Your task to perform on an android device: What's the weather? Image 0: 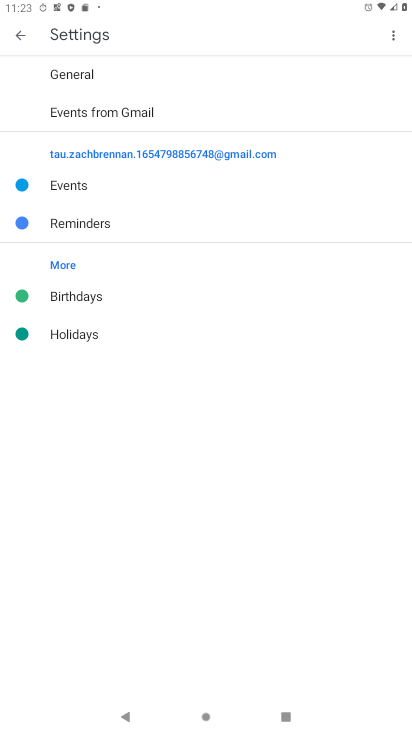
Step 0: drag from (306, 532) to (296, 138)
Your task to perform on an android device: What's the weather? Image 1: 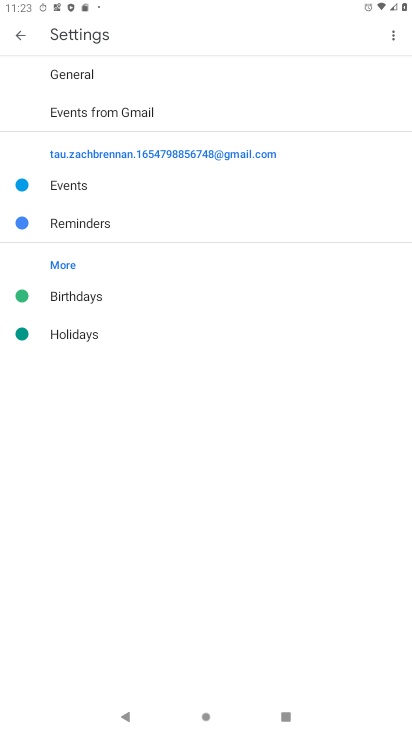
Step 1: click (14, 34)
Your task to perform on an android device: What's the weather? Image 2: 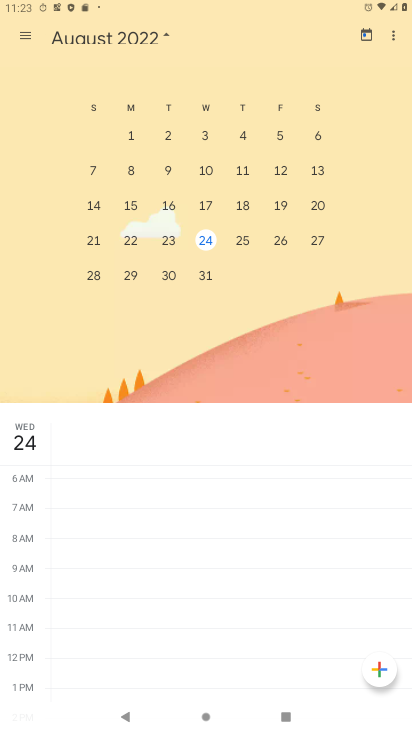
Step 2: press back button
Your task to perform on an android device: What's the weather? Image 3: 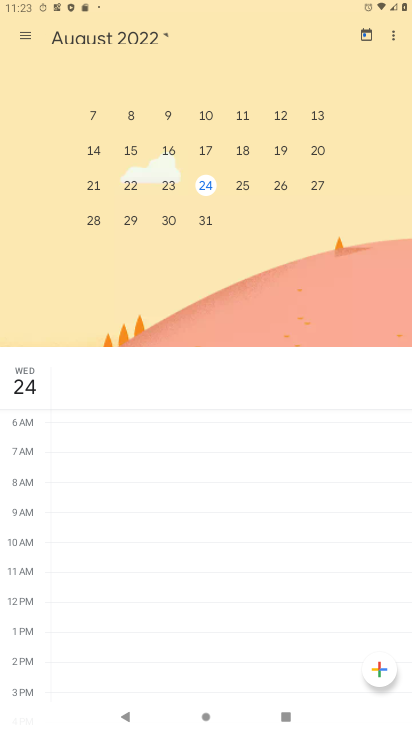
Step 3: press back button
Your task to perform on an android device: What's the weather? Image 4: 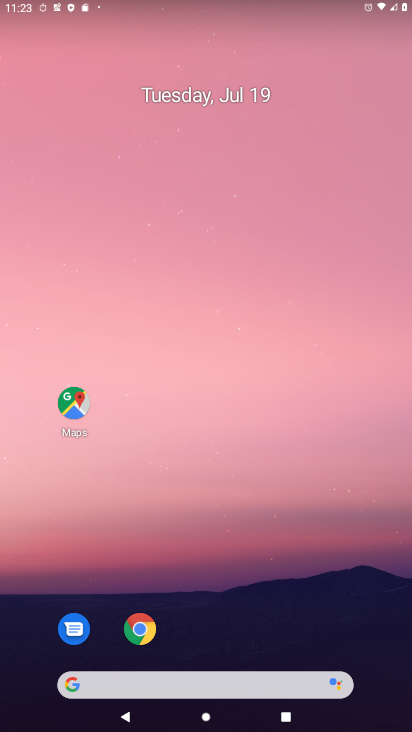
Step 4: drag from (255, 584) to (226, 285)
Your task to perform on an android device: What's the weather? Image 5: 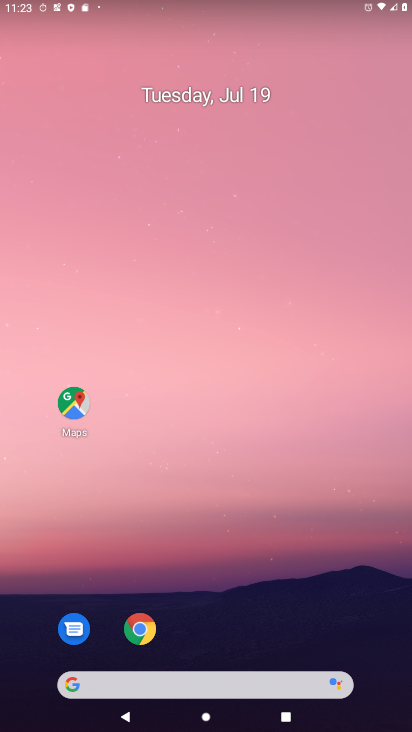
Step 5: drag from (236, 504) to (186, 80)
Your task to perform on an android device: What's the weather? Image 6: 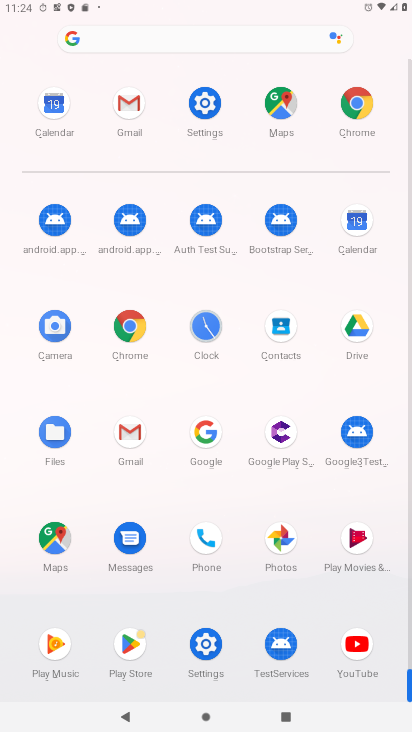
Step 6: click (363, 108)
Your task to perform on an android device: What's the weather? Image 7: 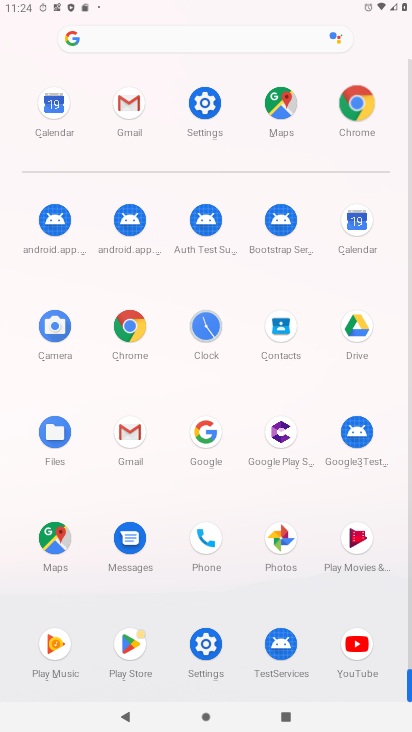
Step 7: click (363, 108)
Your task to perform on an android device: What's the weather? Image 8: 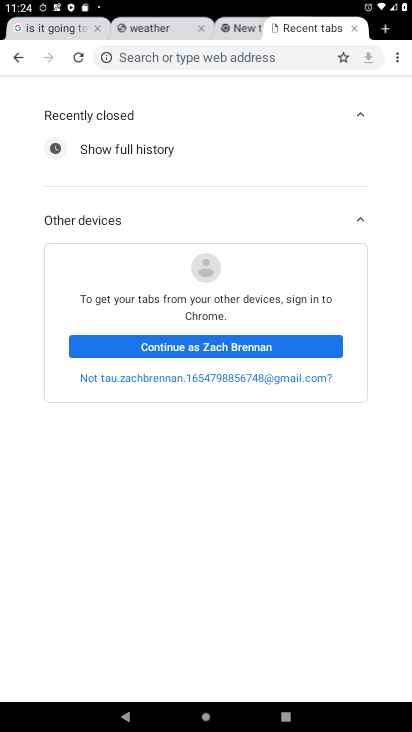
Step 8: drag from (398, 53) to (263, 51)
Your task to perform on an android device: What's the weather? Image 9: 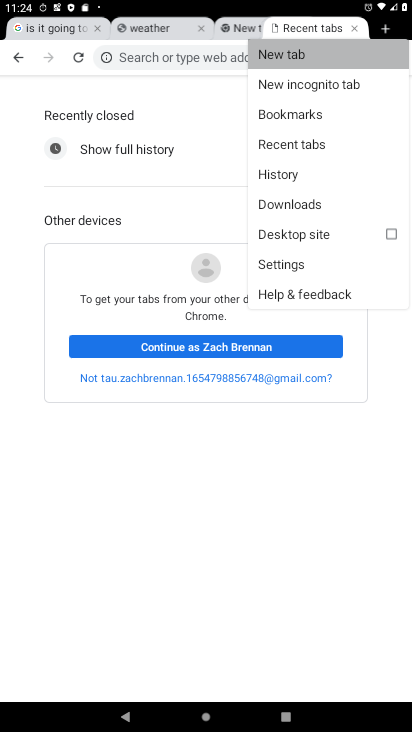
Step 9: click (273, 59)
Your task to perform on an android device: What's the weather? Image 10: 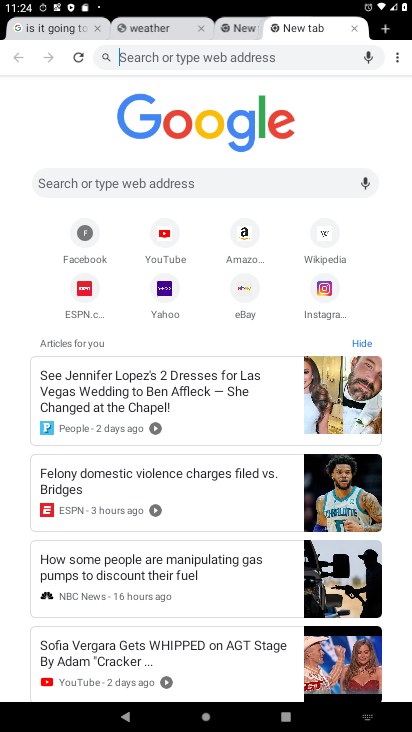
Step 10: click (69, 171)
Your task to perform on an android device: What's the weather? Image 11: 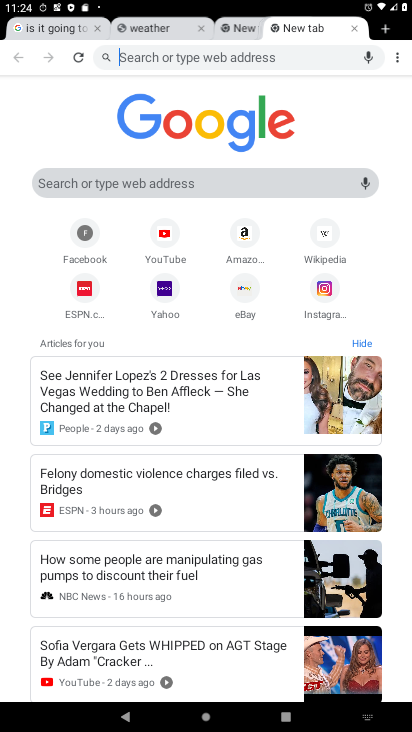
Step 11: click (77, 170)
Your task to perform on an android device: What's the weather? Image 12: 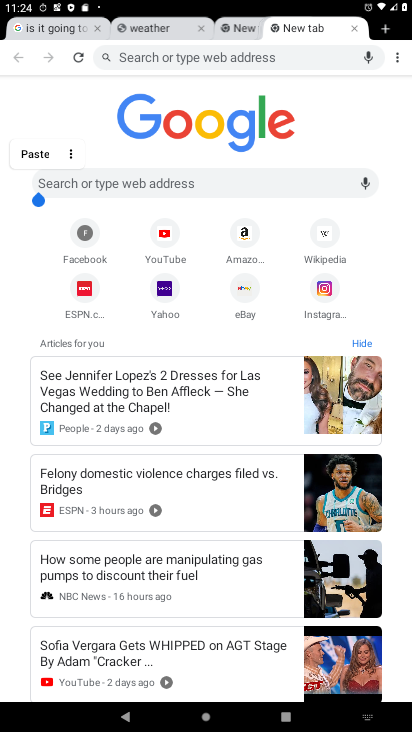
Step 12: click (55, 187)
Your task to perform on an android device: What's the weather? Image 13: 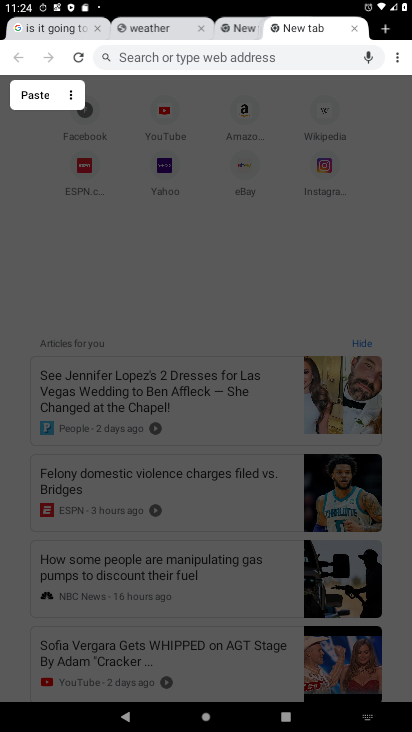
Step 13: type "weather?"
Your task to perform on an android device: What's the weather? Image 14: 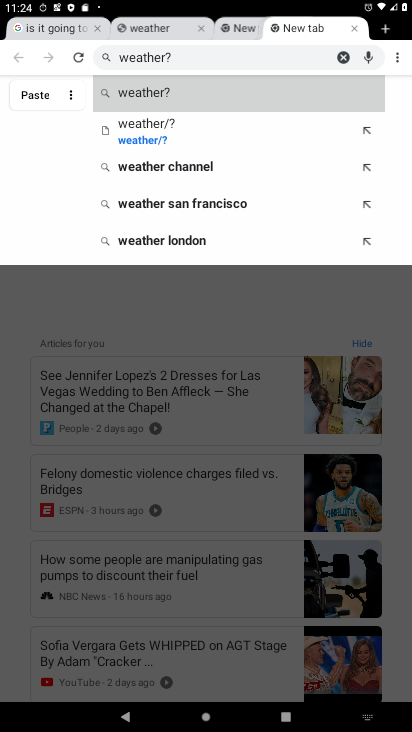
Step 14: click (134, 105)
Your task to perform on an android device: What's the weather? Image 15: 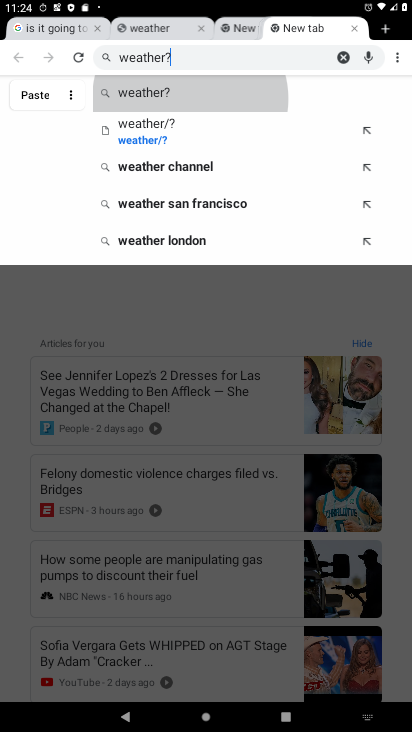
Step 15: click (135, 101)
Your task to perform on an android device: What's the weather? Image 16: 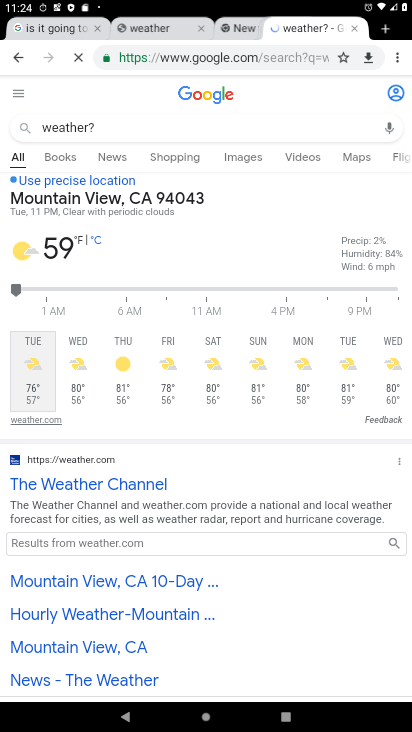
Step 16: task complete